Your task to perform on an android device: change notifications settings Image 0: 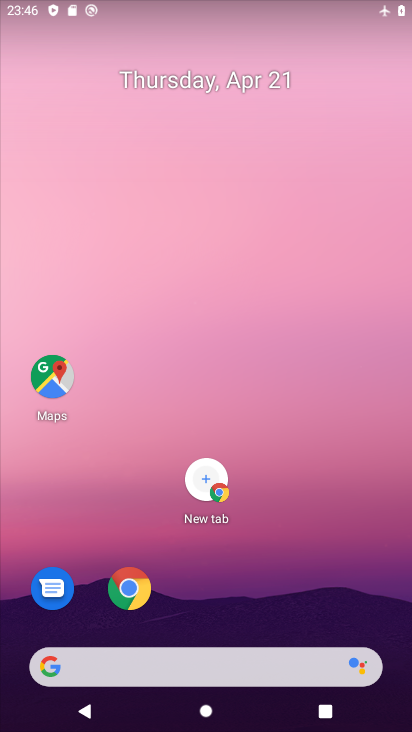
Step 0: drag from (222, 551) to (242, 101)
Your task to perform on an android device: change notifications settings Image 1: 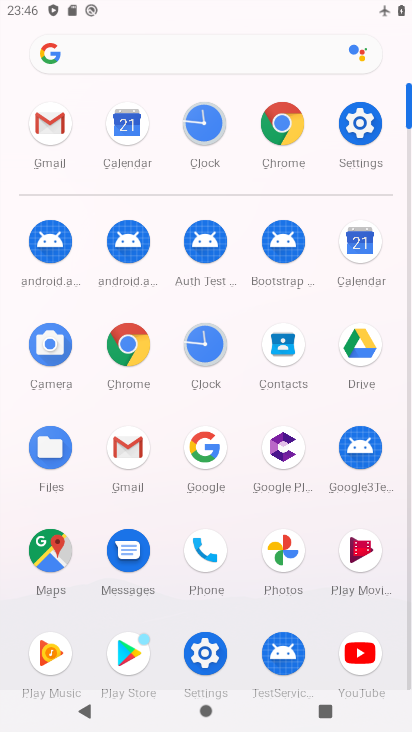
Step 1: click (354, 127)
Your task to perform on an android device: change notifications settings Image 2: 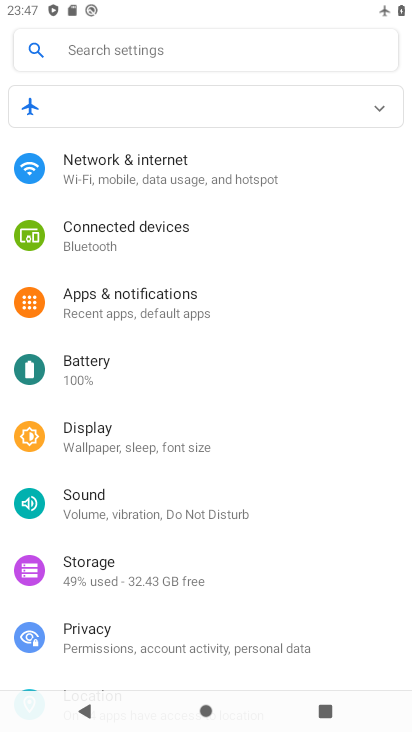
Step 2: click (178, 315)
Your task to perform on an android device: change notifications settings Image 3: 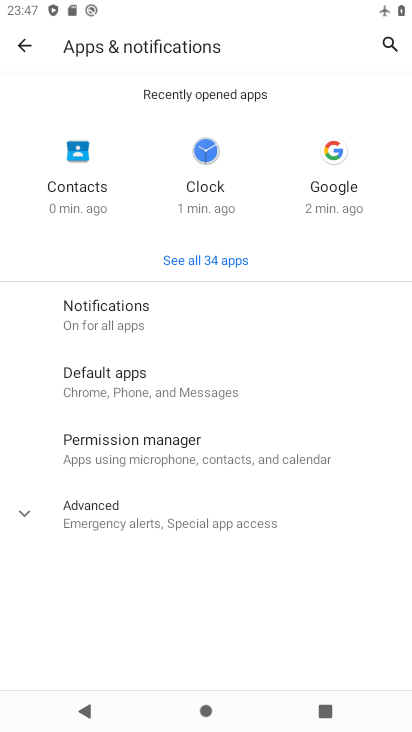
Step 3: click (151, 310)
Your task to perform on an android device: change notifications settings Image 4: 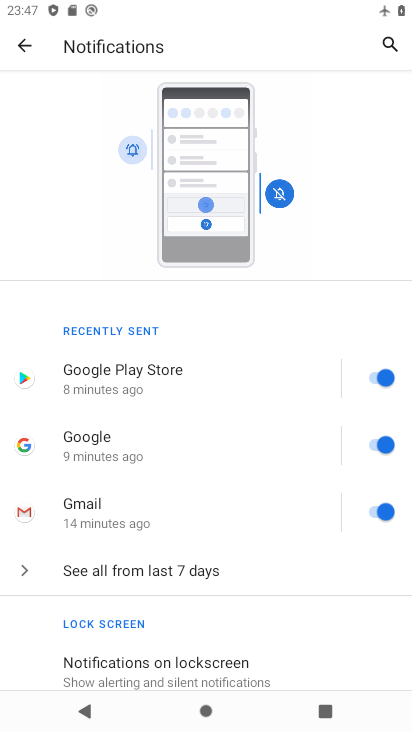
Step 4: drag from (197, 610) to (264, 208)
Your task to perform on an android device: change notifications settings Image 5: 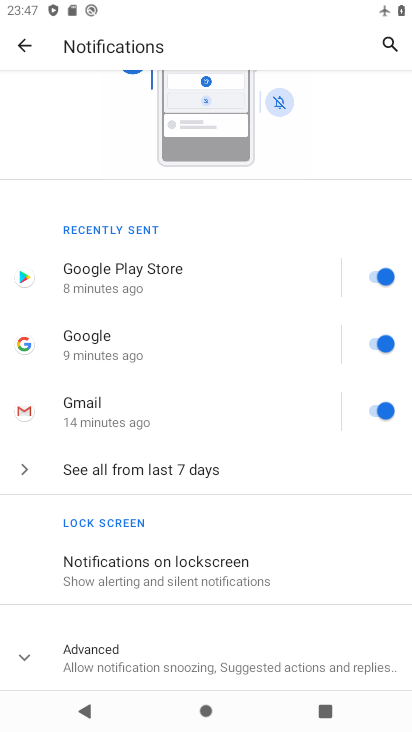
Step 5: click (382, 284)
Your task to perform on an android device: change notifications settings Image 6: 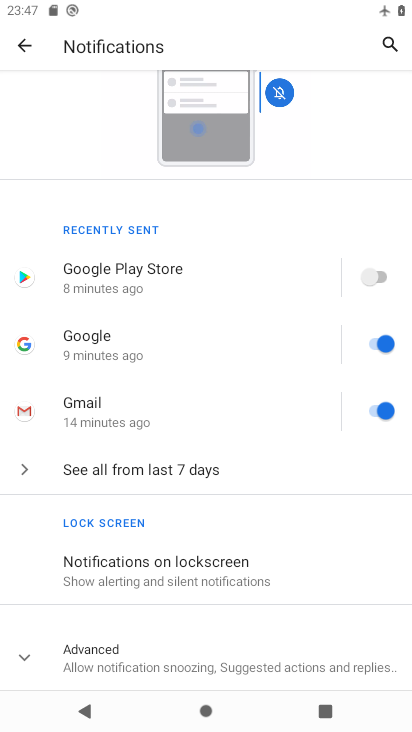
Step 6: click (378, 343)
Your task to perform on an android device: change notifications settings Image 7: 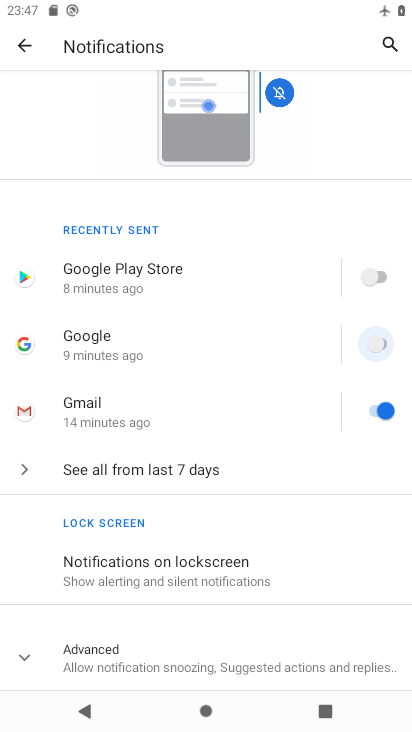
Step 7: click (380, 410)
Your task to perform on an android device: change notifications settings Image 8: 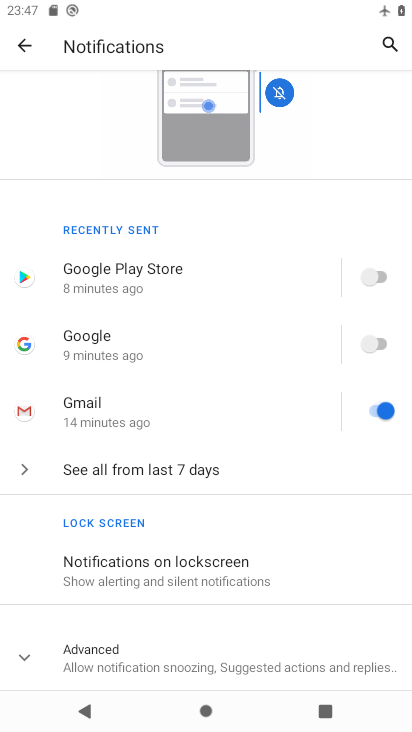
Step 8: task complete